Your task to perform on an android device: toggle javascript in the chrome app Image 0: 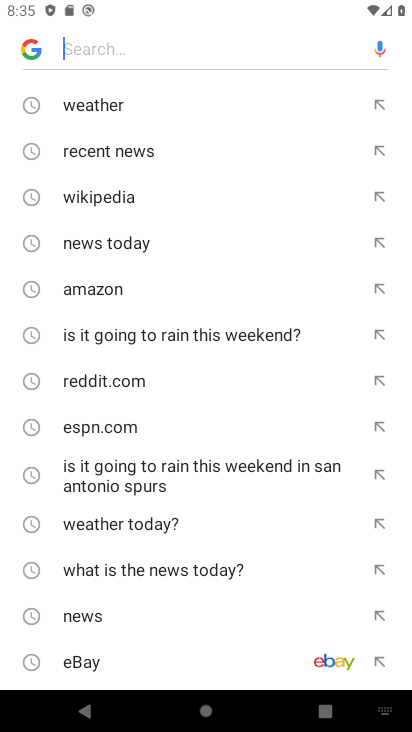
Step 0: press back button
Your task to perform on an android device: toggle javascript in the chrome app Image 1: 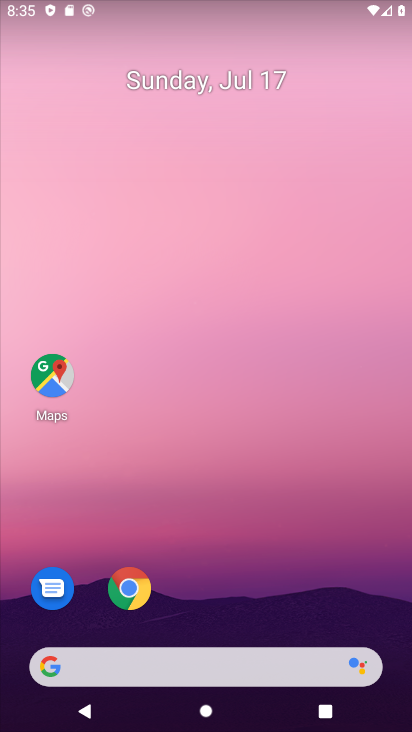
Step 1: drag from (195, 619) to (136, 117)
Your task to perform on an android device: toggle javascript in the chrome app Image 2: 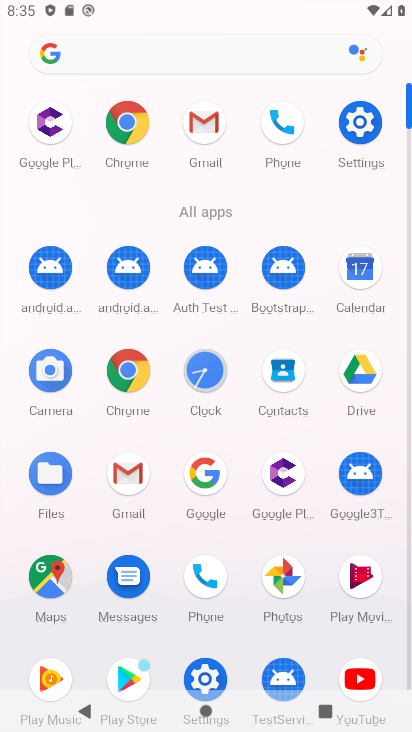
Step 2: click (117, 363)
Your task to perform on an android device: toggle javascript in the chrome app Image 3: 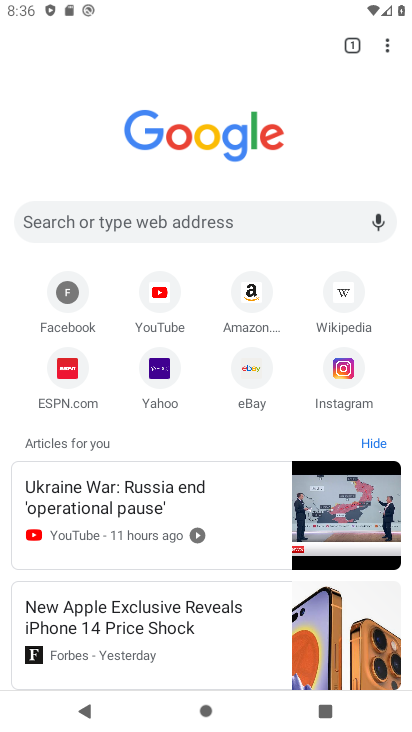
Step 3: click (394, 39)
Your task to perform on an android device: toggle javascript in the chrome app Image 4: 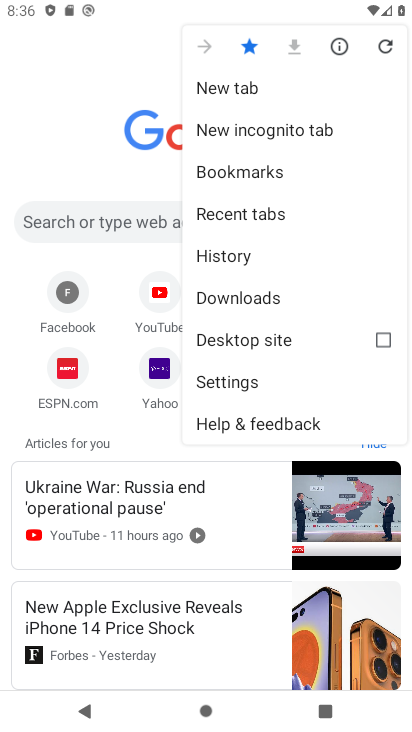
Step 4: click (246, 378)
Your task to perform on an android device: toggle javascript in the chrome app Image 5: 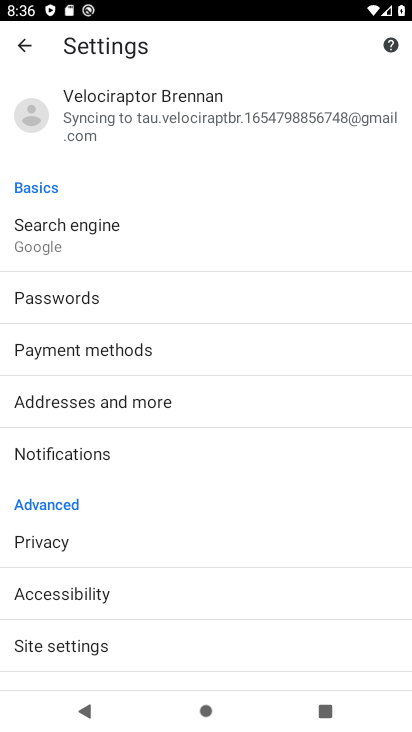
Step 5: drag from (88, 619) to (110, 288)
Your task to perform on an android device: toggle javascript in the chrome app Image 6: 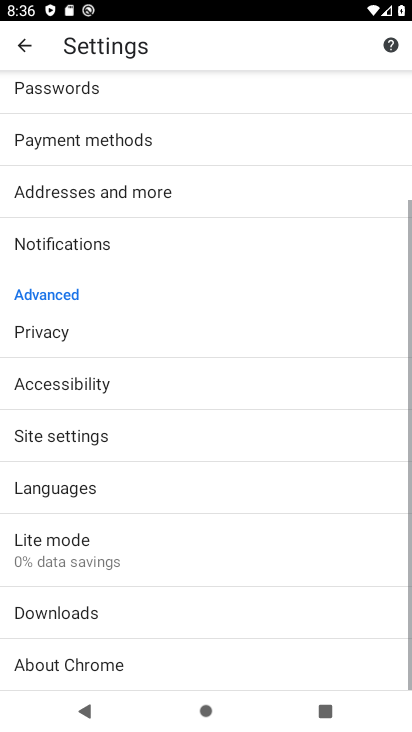
Step 6: click (82, 441)
Your task to perform on an android device: toggle javascript in the chrome app Image 7: 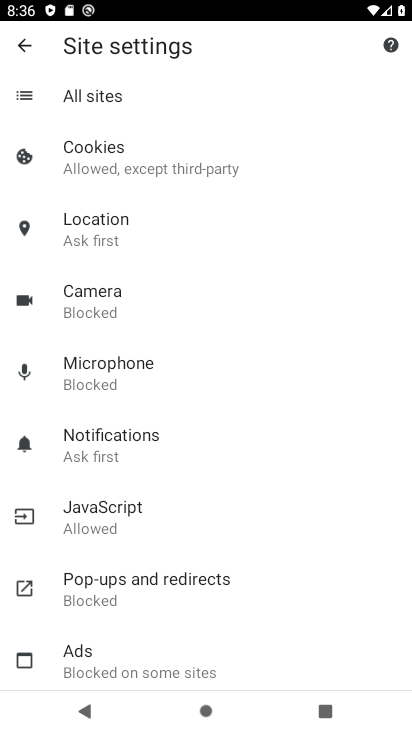
Step 7: click (95, 504)
Your task to perform on an android device: toggle javascript in the chrome app Image 8: 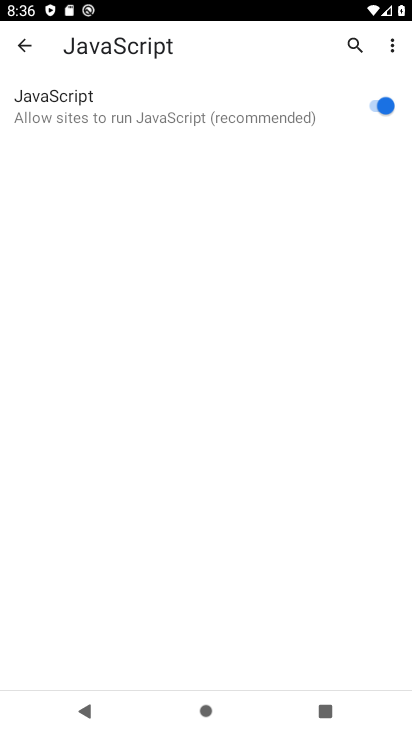
Step 8: click (382, 92)
Your task to perform on an android device: toggle javascript in the chrome app Image 9: 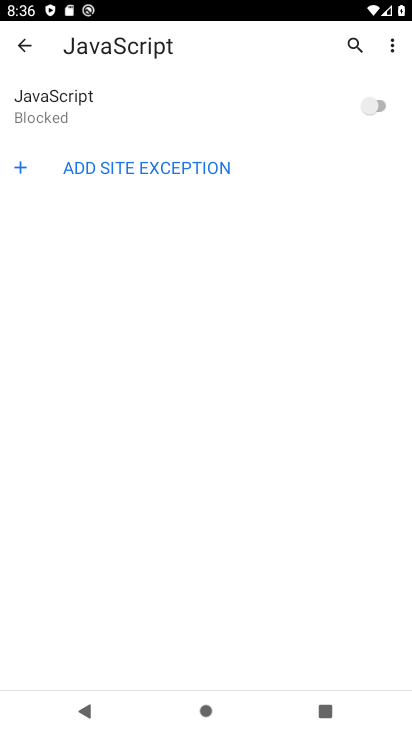
Step 9: task complete